Your task to perform on an android device: set the timer Image 0: 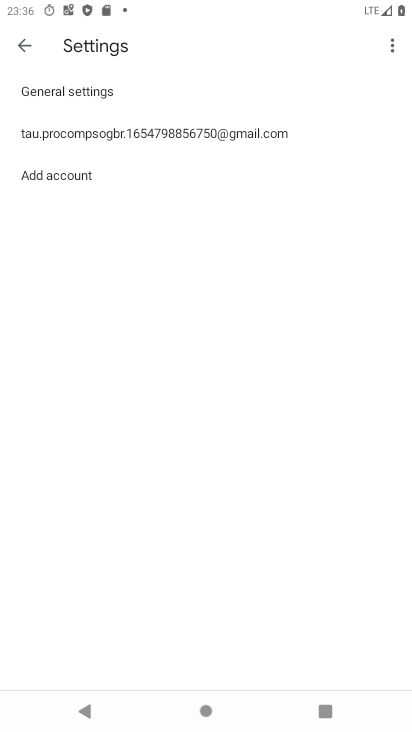
Step 0: press home button
Your task to perform on an android device: set the timer Image 1: 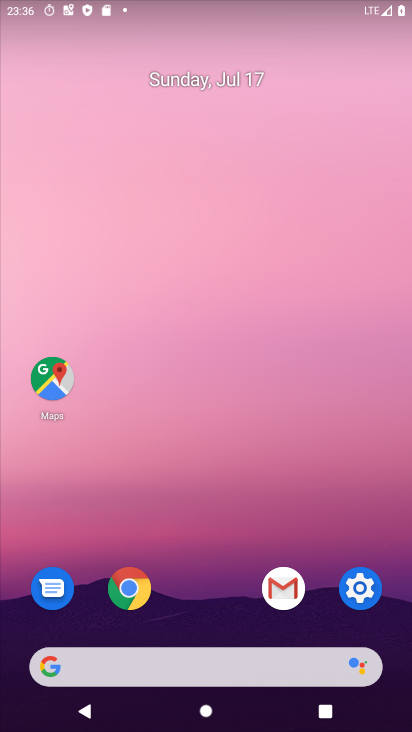
Step 1: drag from (302, 663) to (155, 143)
Your task to perform on an android device: set the timer Image 2: 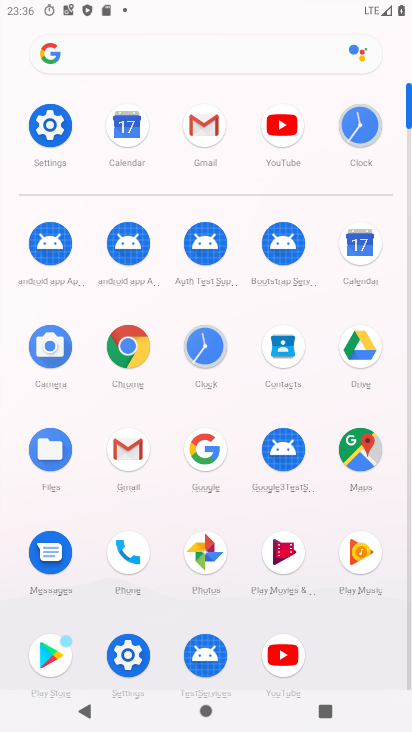
Step 2: click (221, 359)
Your task to perform on an android device: set the timer Image 3: 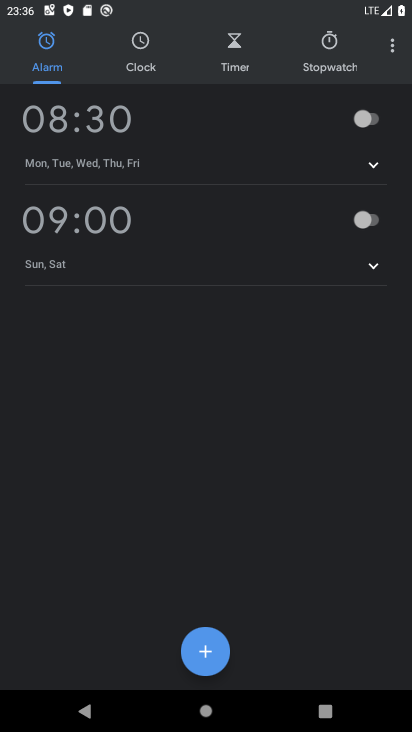
Step 3: click (220, 49)
Your task to perform on an android device: set the timer Image 4: 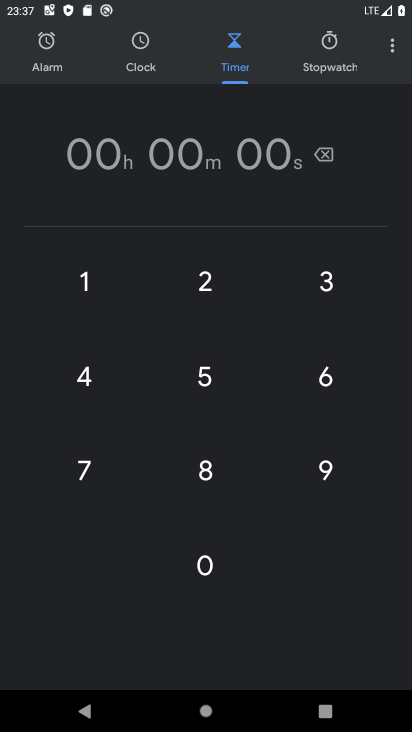
Step 4: click (186, 359)
Your task to perform on an android device: set the timer Image 5: 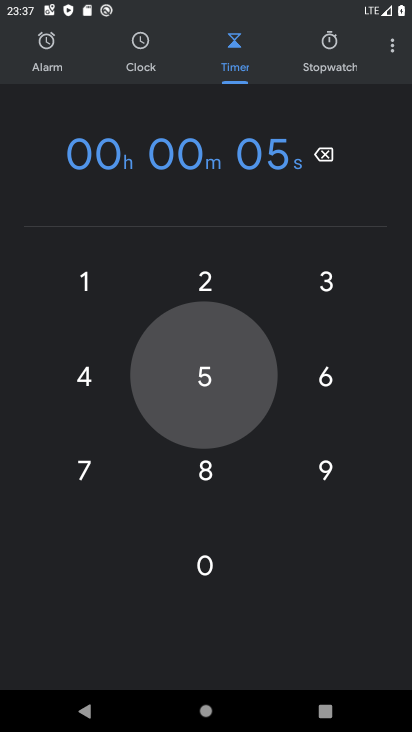
Step 5: click (85, 362)
Your task to perform on an android device: set the timer Image 6: 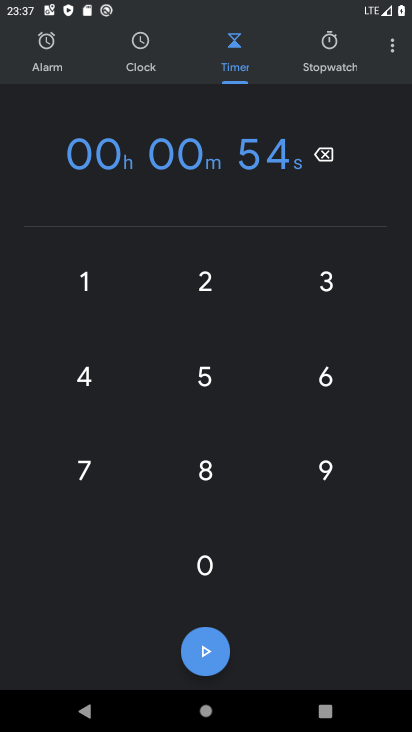
Step 6: click (214, 289)
Your task to perform on an android device: set the timer Image 7: 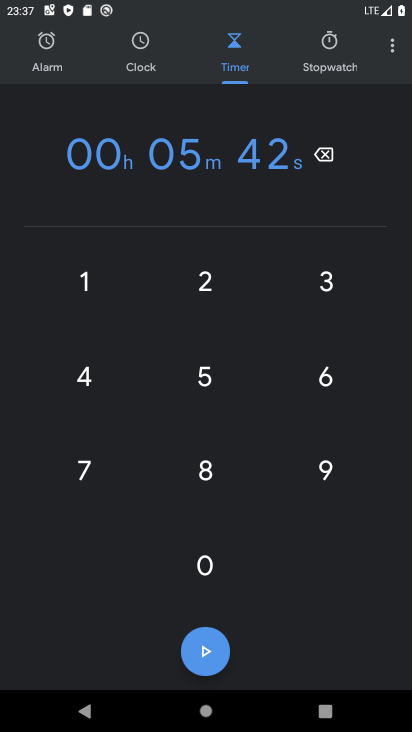
Step 7: click (331, 299)
Your task to perform on an android device: set the timer Image 8: 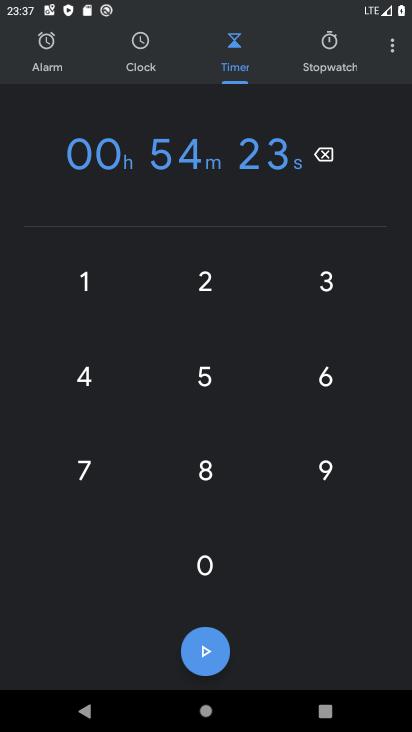
Step 8: task complete